Your task to perform on an android device: Go to settings Image 0: 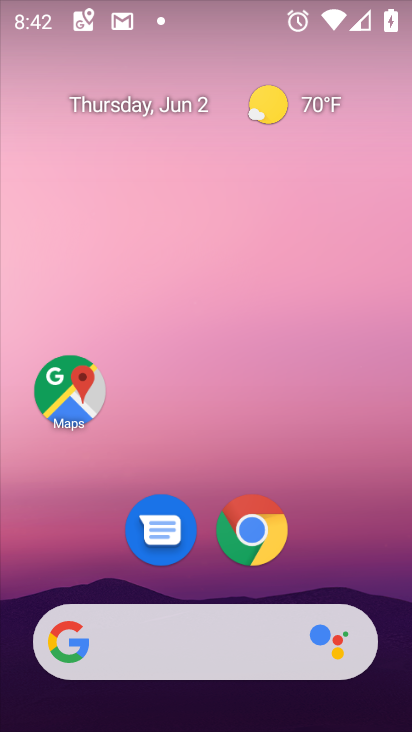
Step 0: drag from (177, 606) to (203, 252)
Your task to perform on an android device: Go to settings Image 1: 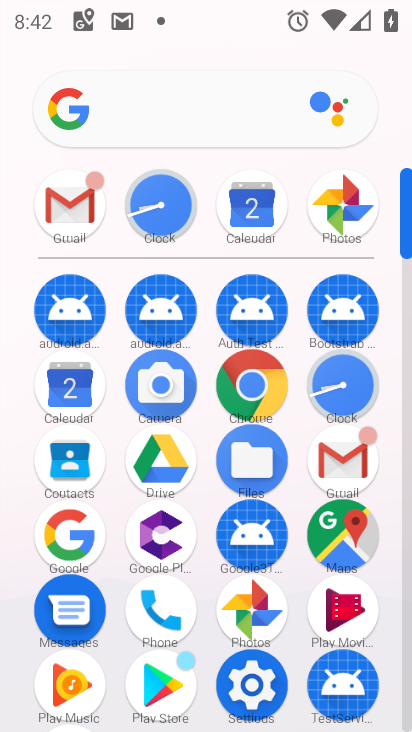
Step 1: drag from (303, 659) to (323, 330)
Your task to perform on an android device: Go to settings Image 2: 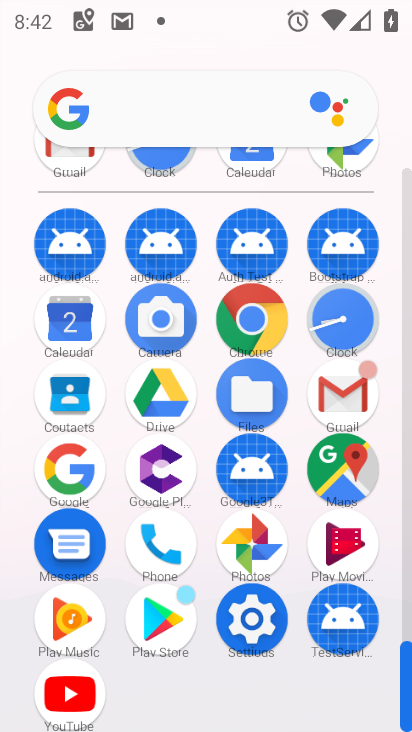
Step 2: click (248, 619)
Your task to perform on an android device: Go to settings Image 3: 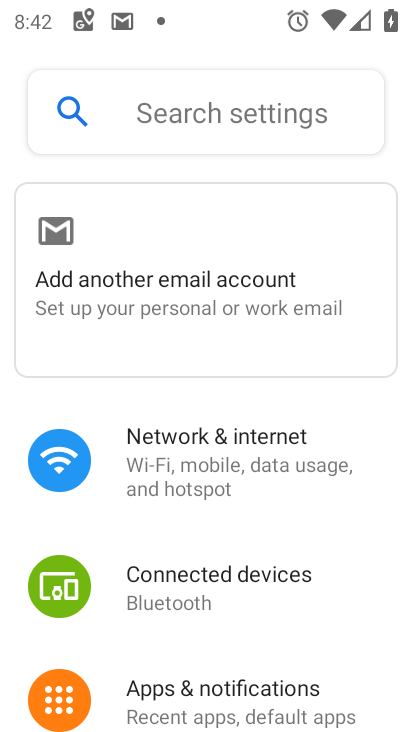
Step 3: task complete